Your task to perform on an android device: Open Chrome and go to the settings page Image 0: 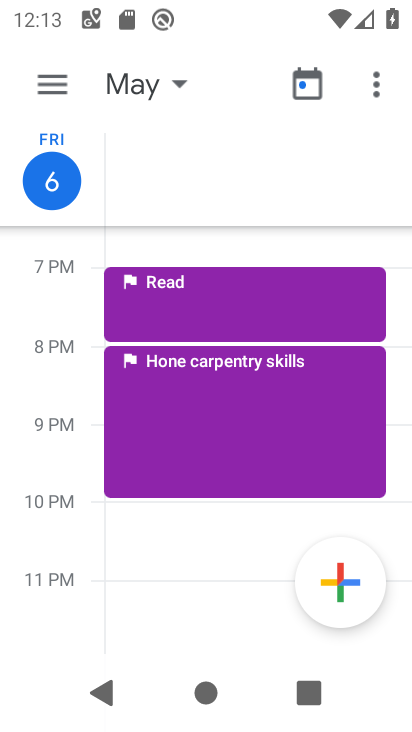
Step 0: press home button
Your task to perform on an android device: Open Chrome and go to the settings page Image 1: 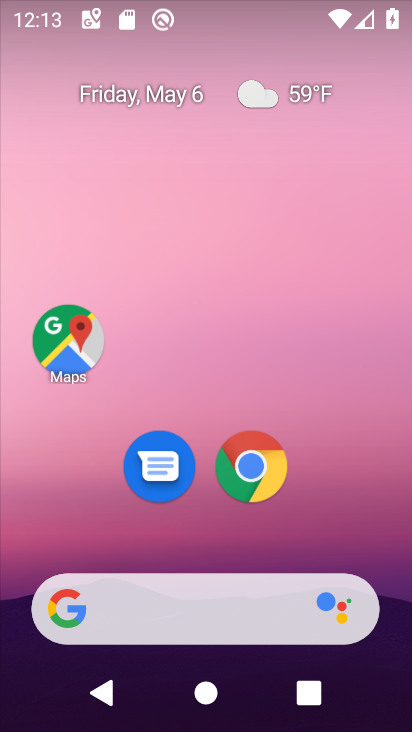
Step 1: drag from (358, 510) to (289, 263)
Your task to perform on an android device: Open Chrome and go to the settings page Image 2: 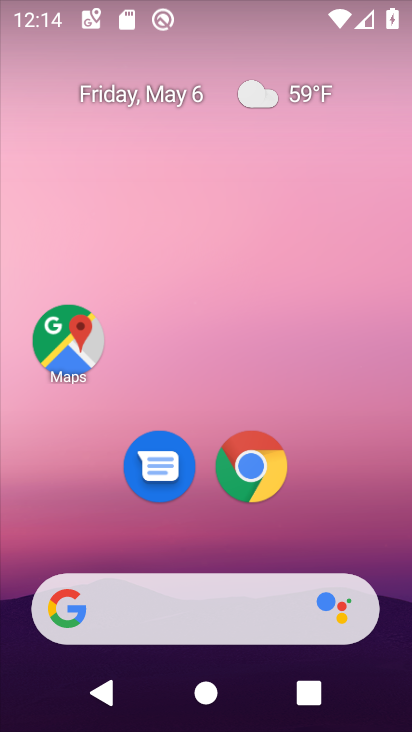
Step 2: click (279, 457)
Your task to perform on an android device: Open Chrome and go to the settings page Image 3: 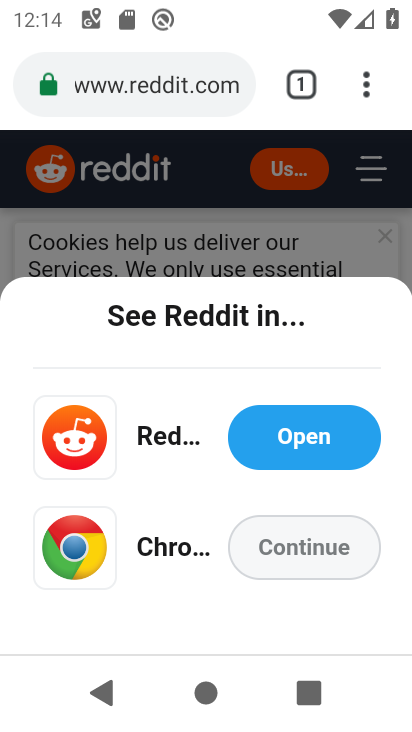
Step 3: task complete